Your task to perform on an android device: Go to wifi settings Image 0: 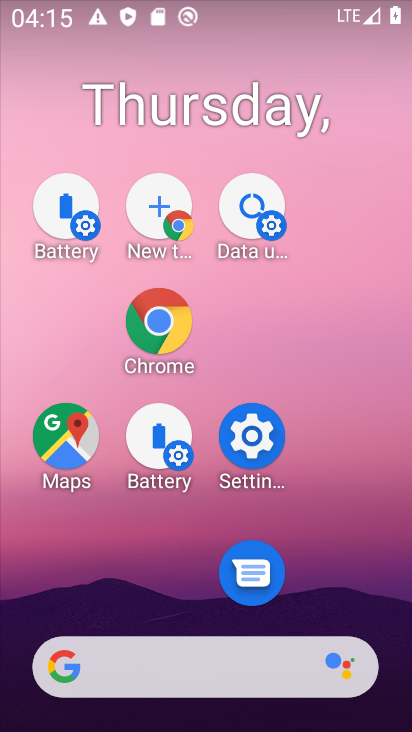
Step 0: drag from (200, 699) to (152, 132)
Your task to perform on an android device: Go to wifi settings Image 1: 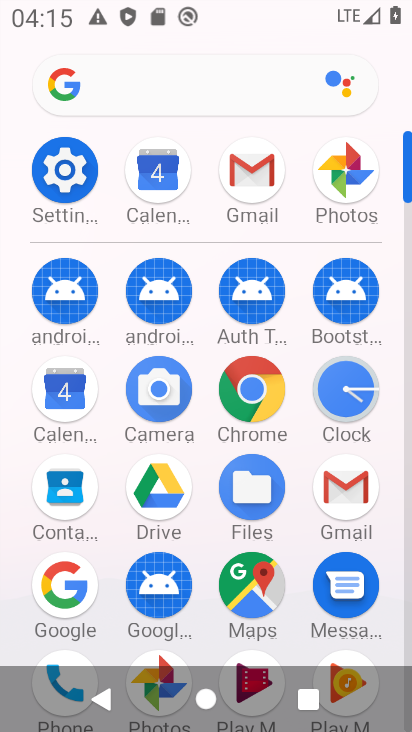
Step 1: drag from (200, 552) to (135, 136)
Your task to perform on an android device: Go to wifi settings Image 2: 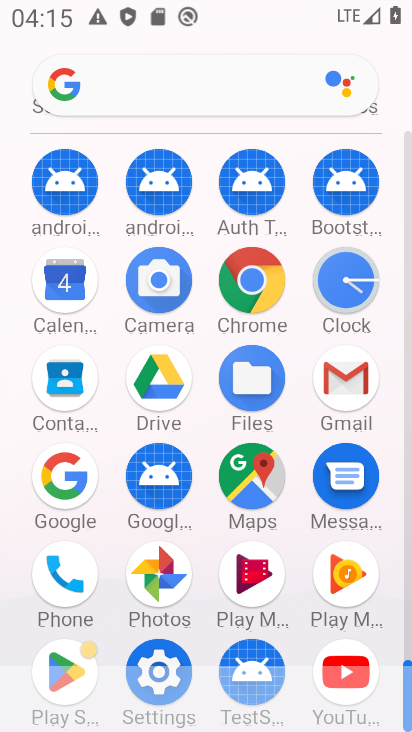
Step 2: click (59, 166)
Your task to perform on an android device: Go to wifi settings Image 3: 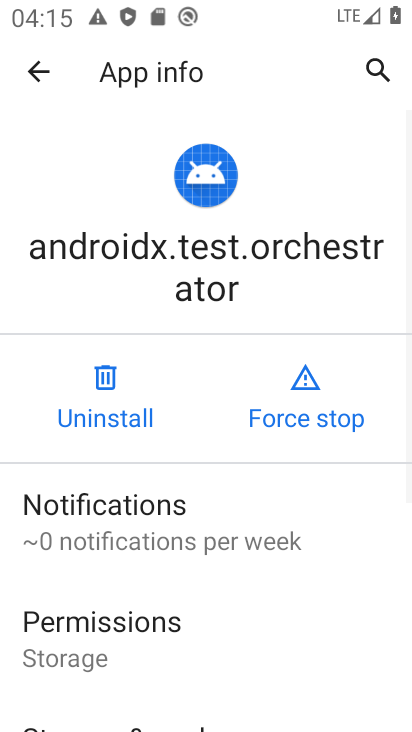
Step 3: click (32, 76)
Your task to perform on an android device: Go to wifi settings Image 4: 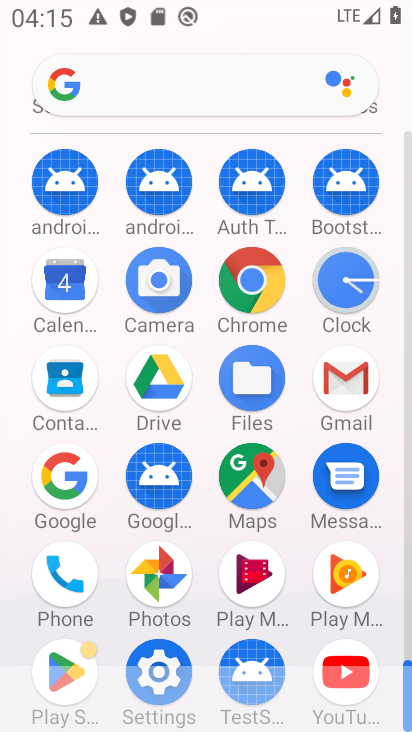
Step 4: click (159, 654)
Your task to perform on an android device: Go to wifi settings Image 5: 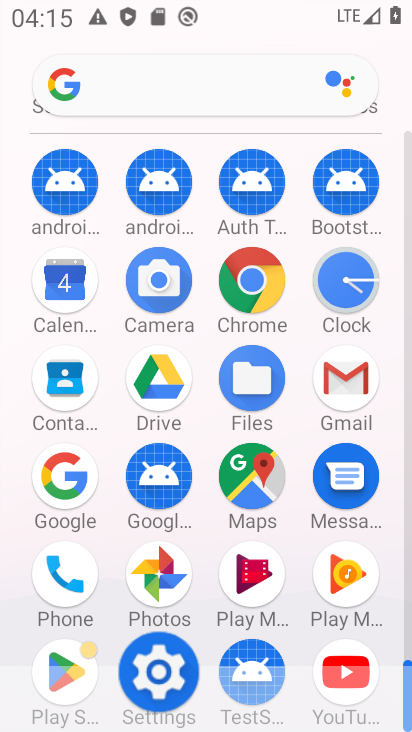
Step 5: click (159, 654)
Your task to perform on an android device: Go to wifi settings Image 6: 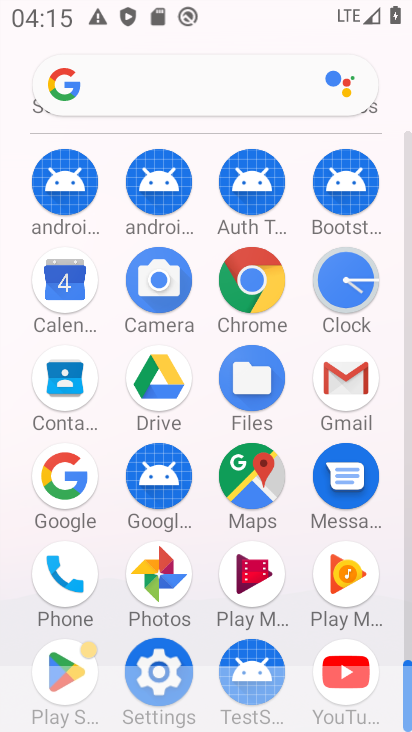
Step 6: click (159, 654)
Your task to perform on an android device: Go to wifi settings Image 7: 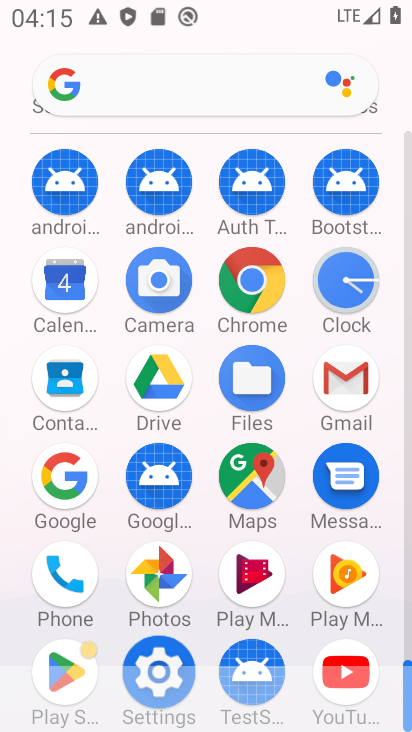
Step 7: click (160, 655)
Your task to perform on an android device: Go to wifi settings Image 8: 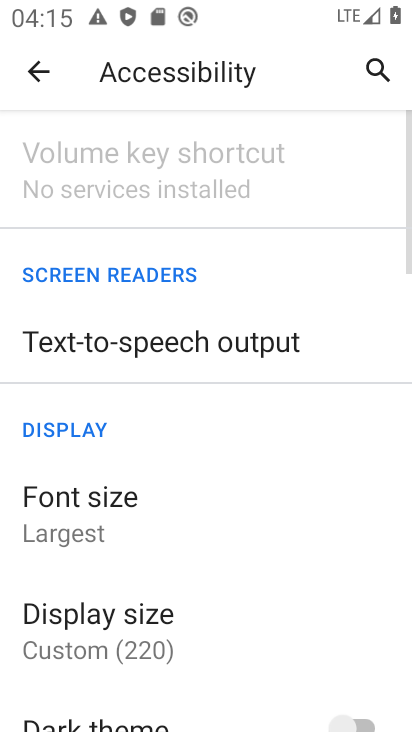
Step 8: click (32, 67)
Your task to perform on an android device: Go to wifi settings Image 9: 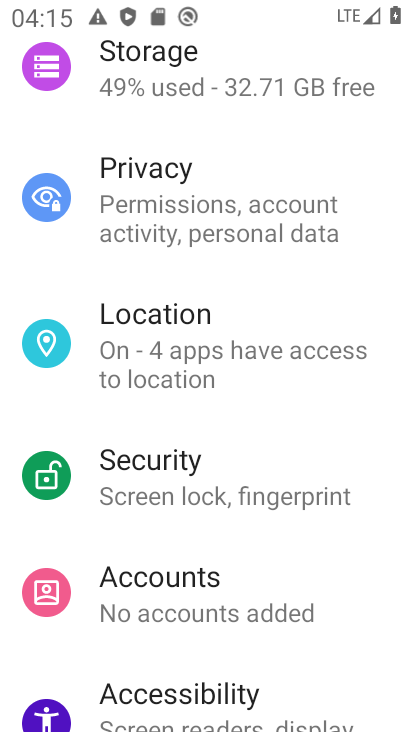
Step 9: drag from (176, 135) to (278, 496)
Your task to perform on an android device: Go to wifi settings Image 10: 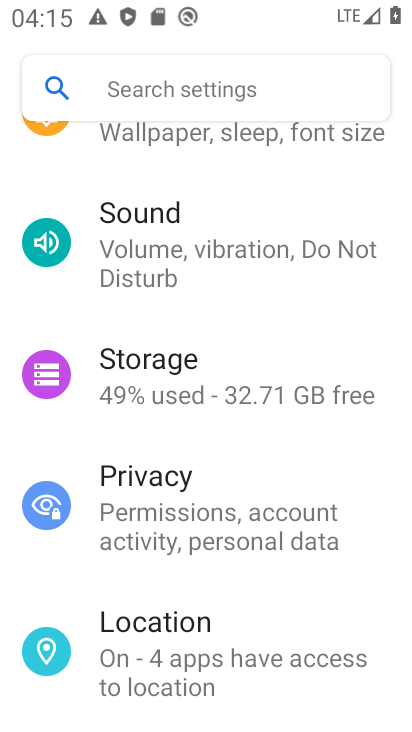
Step 10: drag from (260, 256) to (279, 529)
Your task to perform on an android device: Go to wifi settings Image 11: 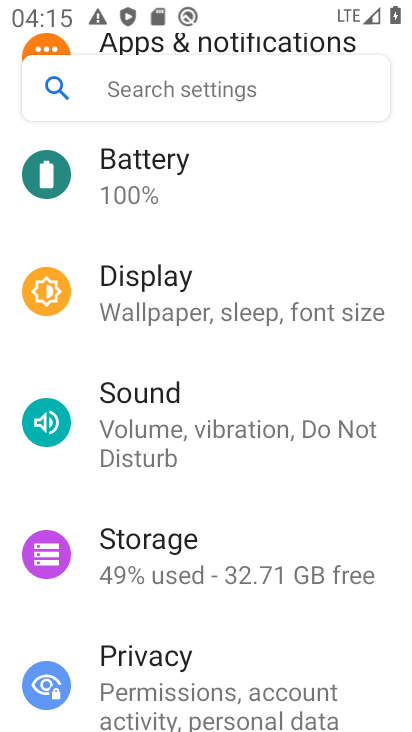
Step 11: drag from (257, 248) to (210, 415)
Your task to perform on an android device: Go to wifi settings Image 12: 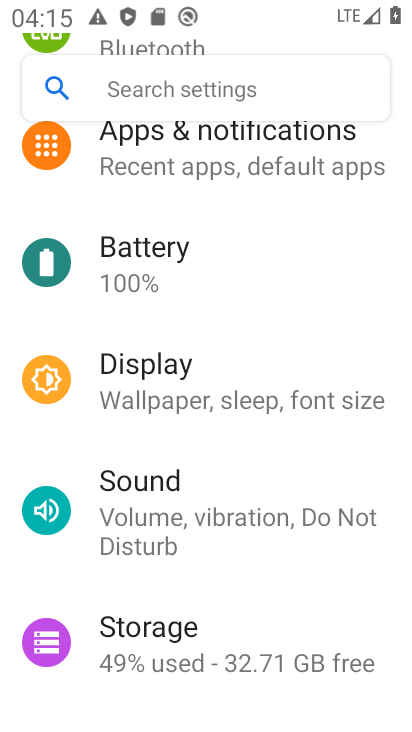
Step 12: drag from (123, 273) to (157, 436)
Your task to perform on an android device: Go to wifi settings Image 13: 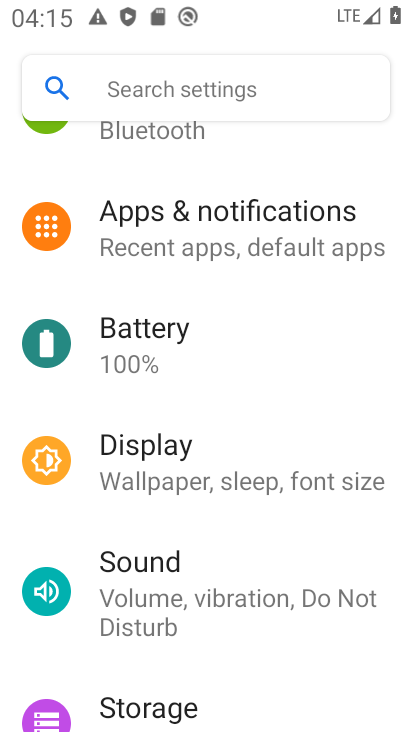
Step 13: drag from (165, 230) to (219, 516)
Your task to perform on an android device: Go to wifi settings Image 14: 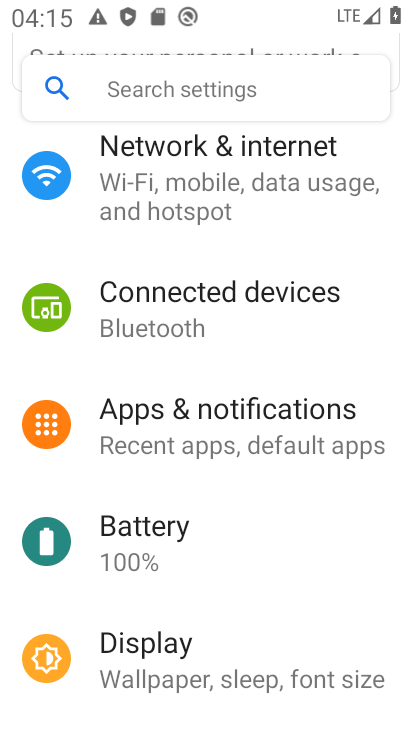
Step 14: drag from (142, 214) to (233, 534)
Your task to perform on an android device: Go to wifi settings Image 15: 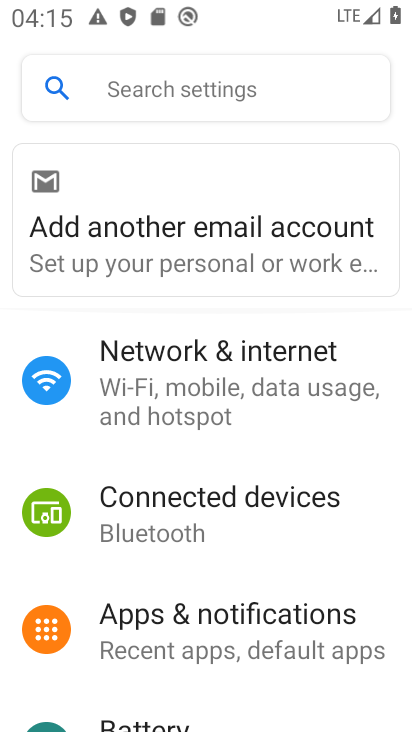
Step 15: drag from (197, 313) to (243, 610)
Your task to perform on an android device: Go to wifi settings Image 16: 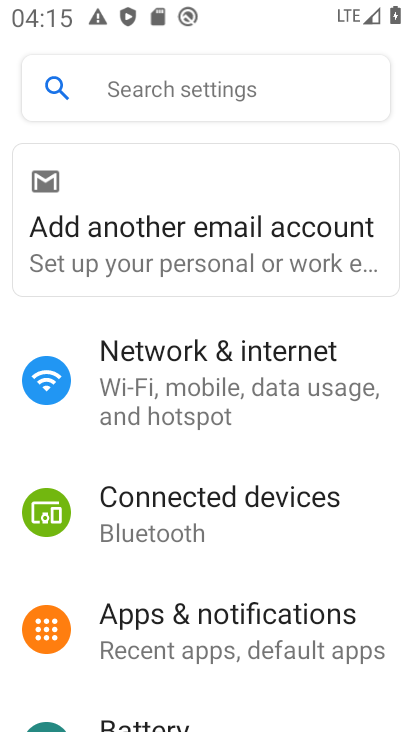
Step 16: click (175, 360)
Your task to perform on an android device: Go to wifi settings Image 17: 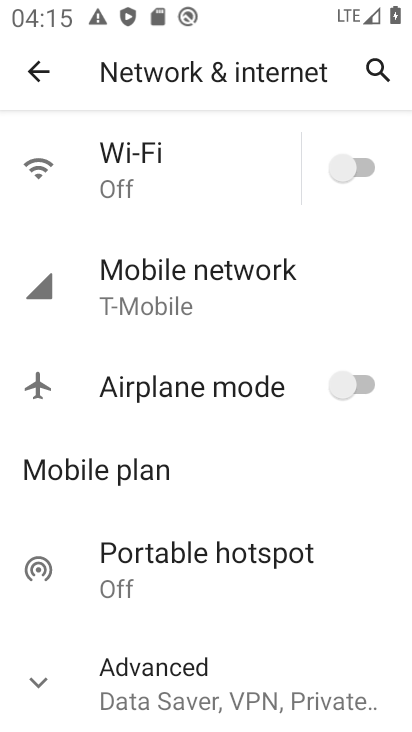
Step 17: click (339, 166)
Your task to perform on an android device: Go to wifi settings Image 18: 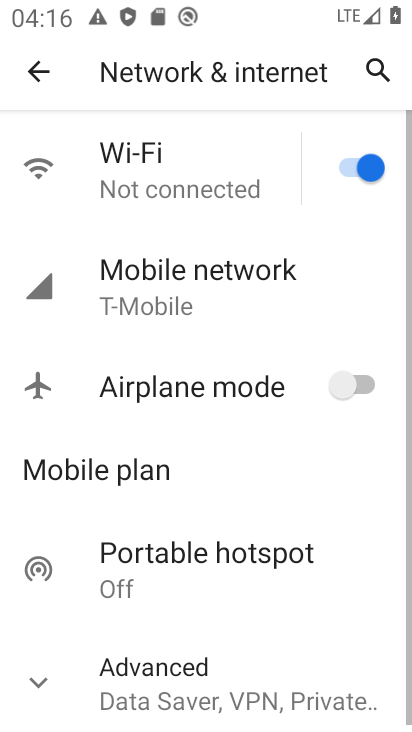
Step 18: task complete